Your task to perform on an android device: Open Chrome and go to the settings page Image 0: 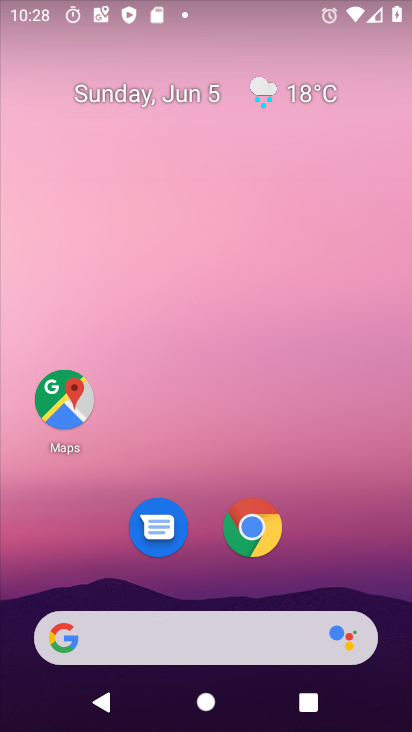
Step 0: drag from (351, 443) to (327, 44)
Your task to perform on an android device: Open Chrome and go to the settings page Image 1: 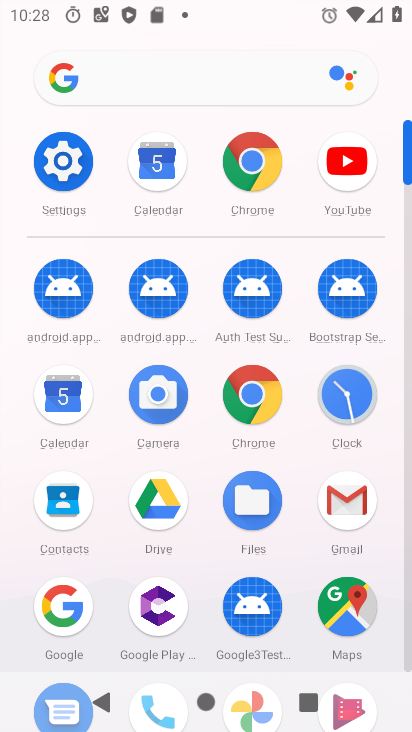
Step 1: click (281, 163)
Your task to perform on an android device: Open Chrome and go to the settings page Image 2: 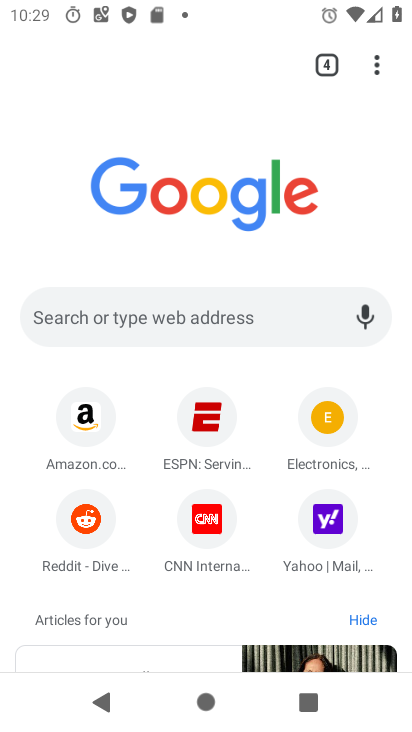
Step 2: task complete